Your task to perform on an android device: install app "DuckDuckGo Privacy Browser" Image 0: 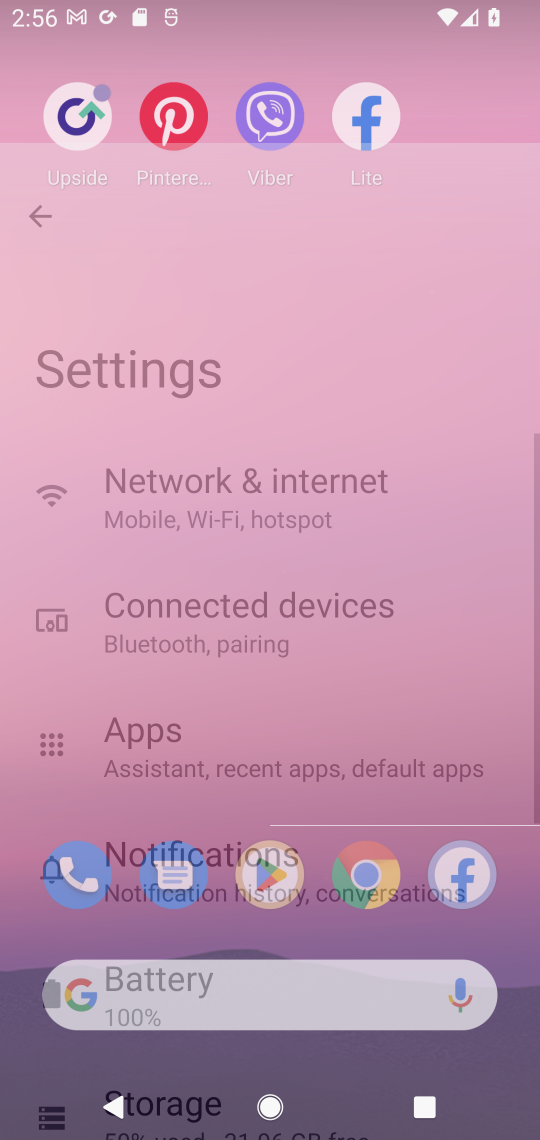
Step 0: press home button
Your task to perform on an android device: install app "DuckDuckGo Privacy Browser" Image 1: 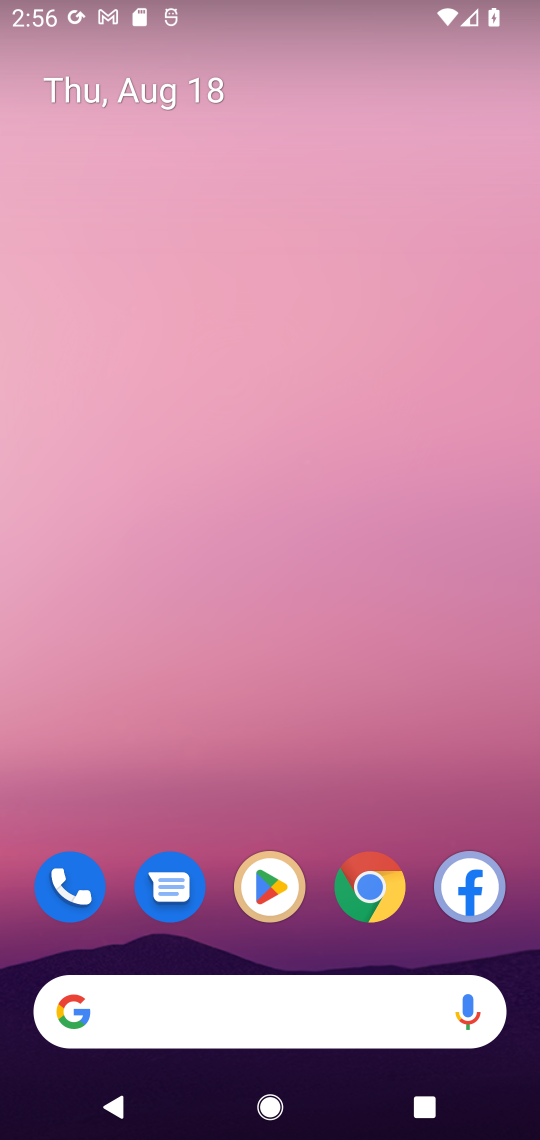
Step 1: drag from (318, 947) to (298, 11)
Your task to perform on an android device: install app "DuckDuckGo Privacy Browser" Image 2: 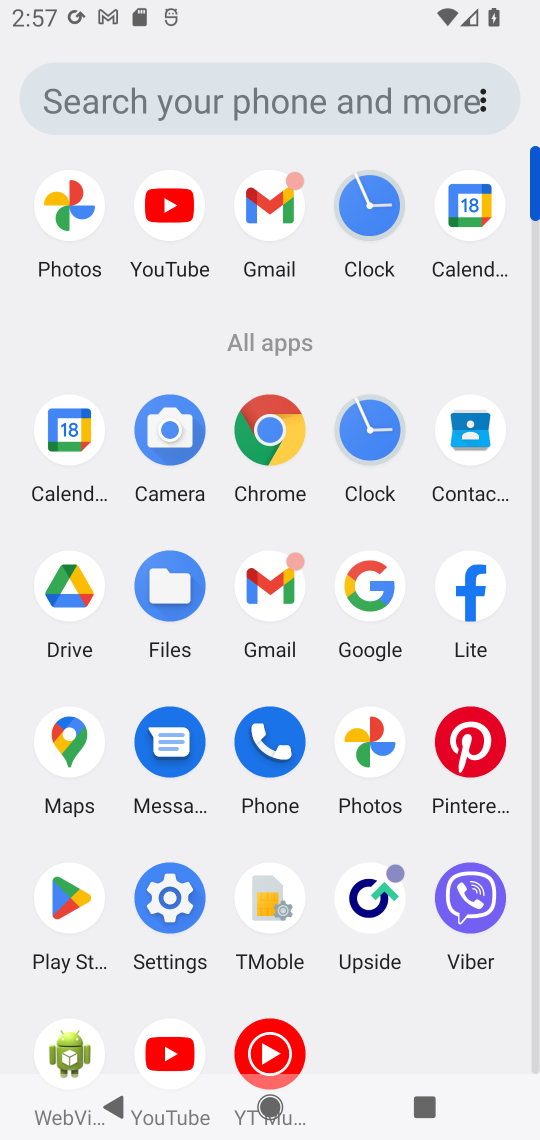
Step 2: click (64, 897)
Your task to perform on an android device: install app "DuckDuckGo Privacy Browser" Image 3: 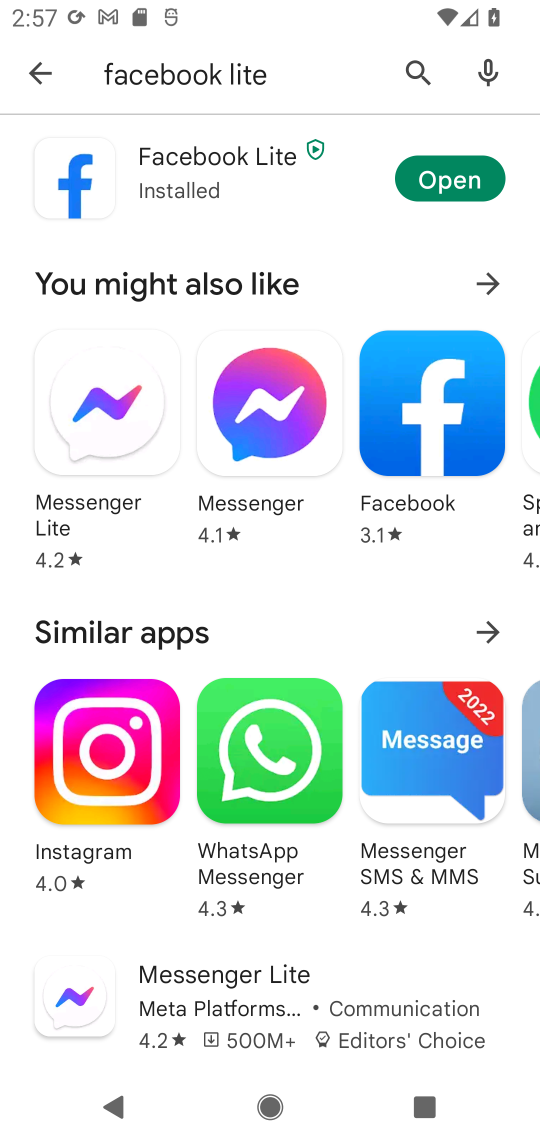
Step 3: click (419, 72)
Your task to perform on an android device: install app "DuckDuckGo Privacy Browser" Image 4: 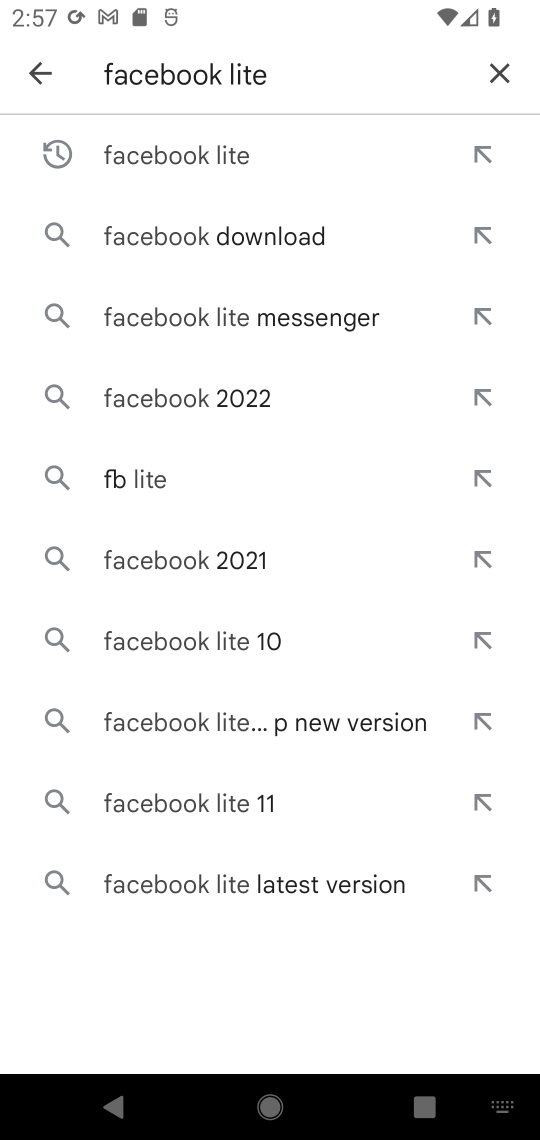
Step 4: click (486, 72)
Your task to perform on an android device: install app "DuckDuckGo Privacy Browser" Image 5: 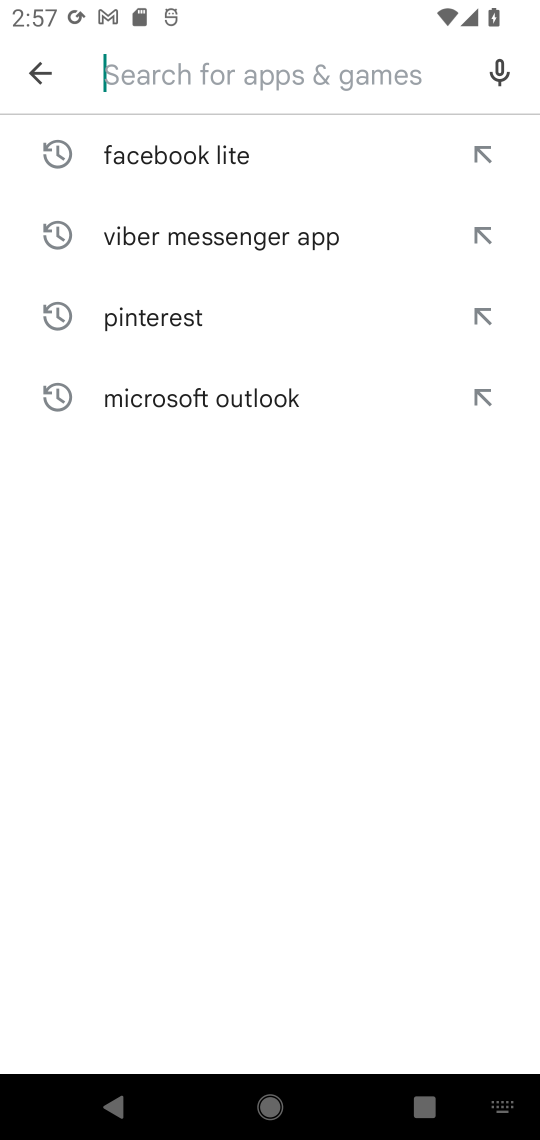
Step 5: type "DuckDuckGo Privacy Browser"
Your task to perform on an android device: install app "DuckDuckGo Privacy Browser" Image 6: 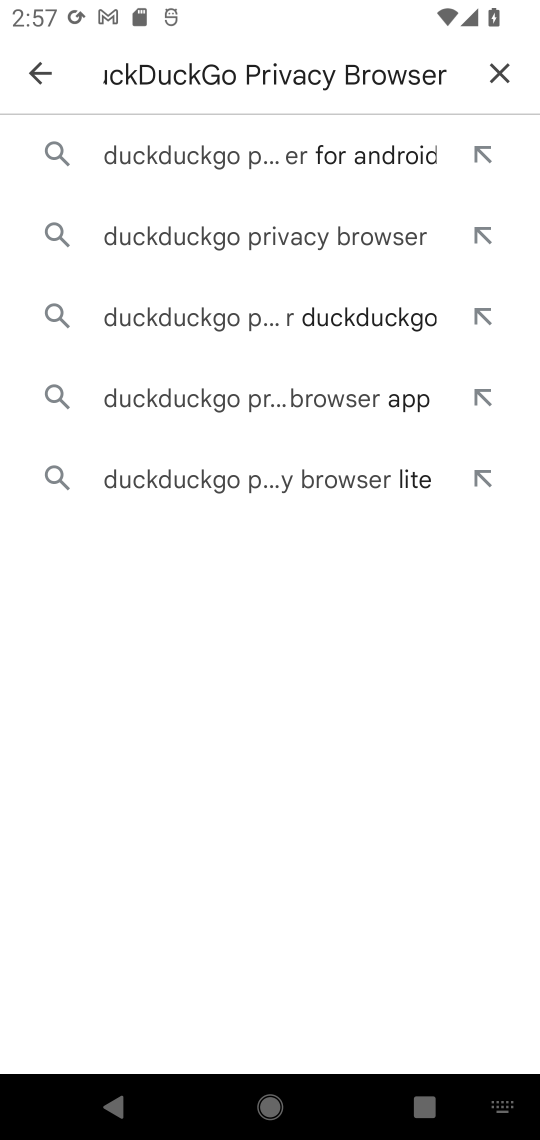
Step 6: click (294, 145)
Your task to perform on an android device: install app "DuckDuckGo Privacy Browser" Image 7: 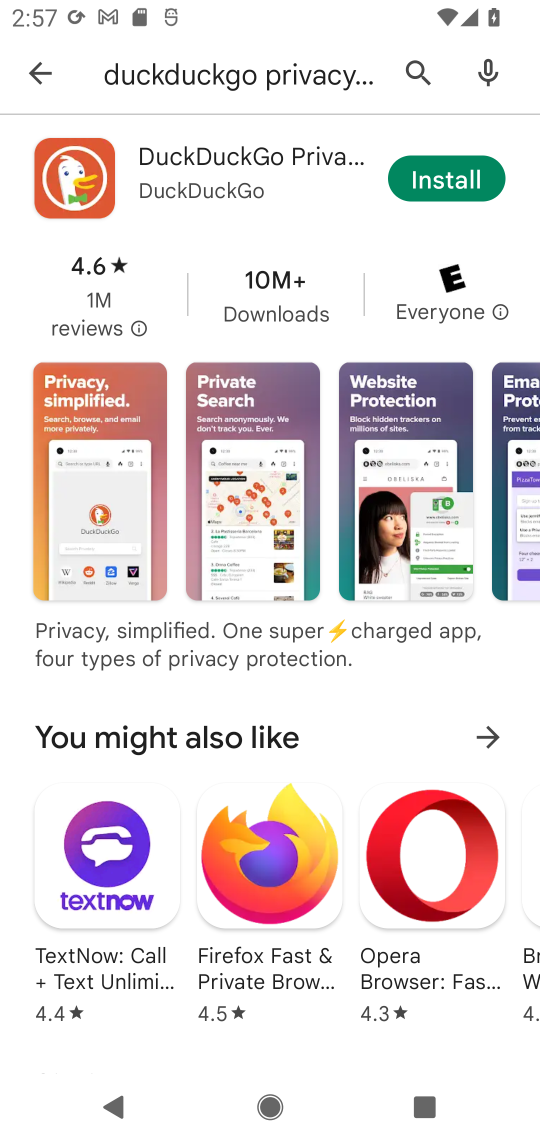
Step 7: click (443, 176)
Your task to perform on an android device: install app "DuckDuckGo Privacy Browser" Image 8: 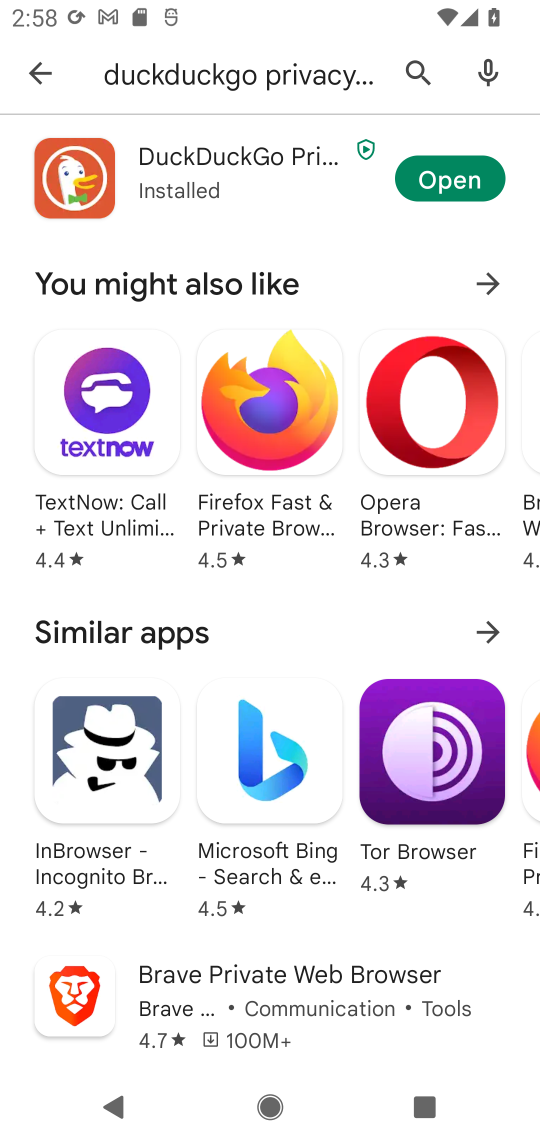
Step 8: click (443, 168)
Your task to perform on an android device: install app "DuckDuckGo Privacy Browser" Image 9: 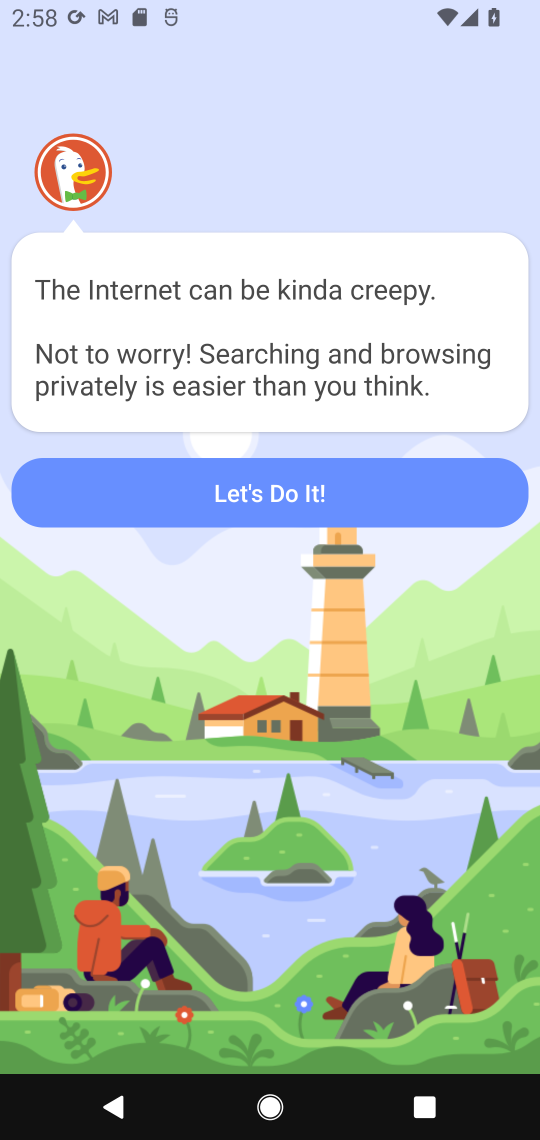
Step 9: click (262, 498)
Your task to perform on an android device: install app "DuckDuckGo Privacy Browser" Image 10: 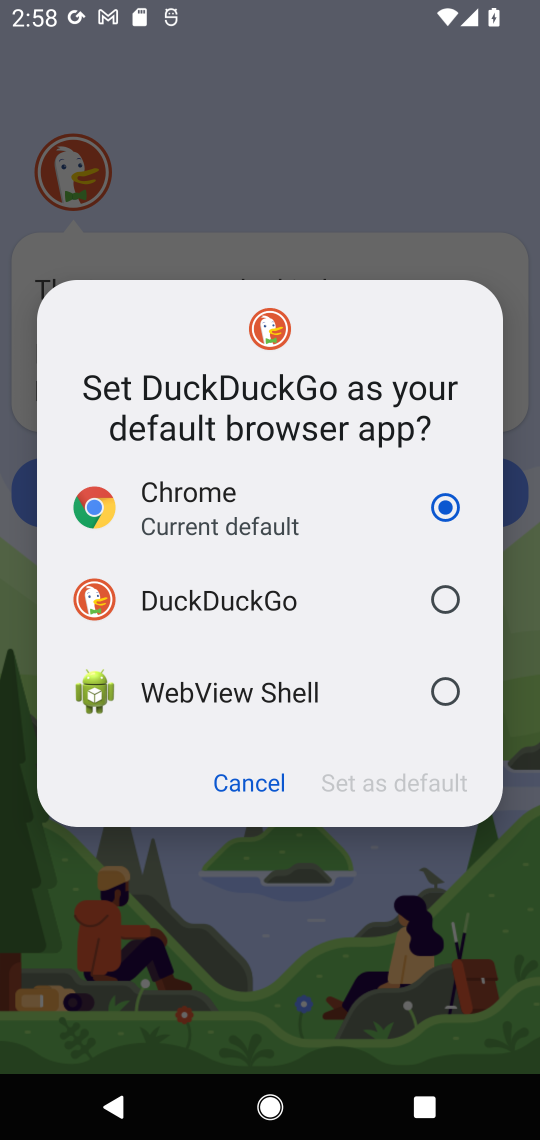
Step 10: click (442, 595)
Your task to perform on an android device: install app "DuckDuckGo Privacy Browser" Image 11: 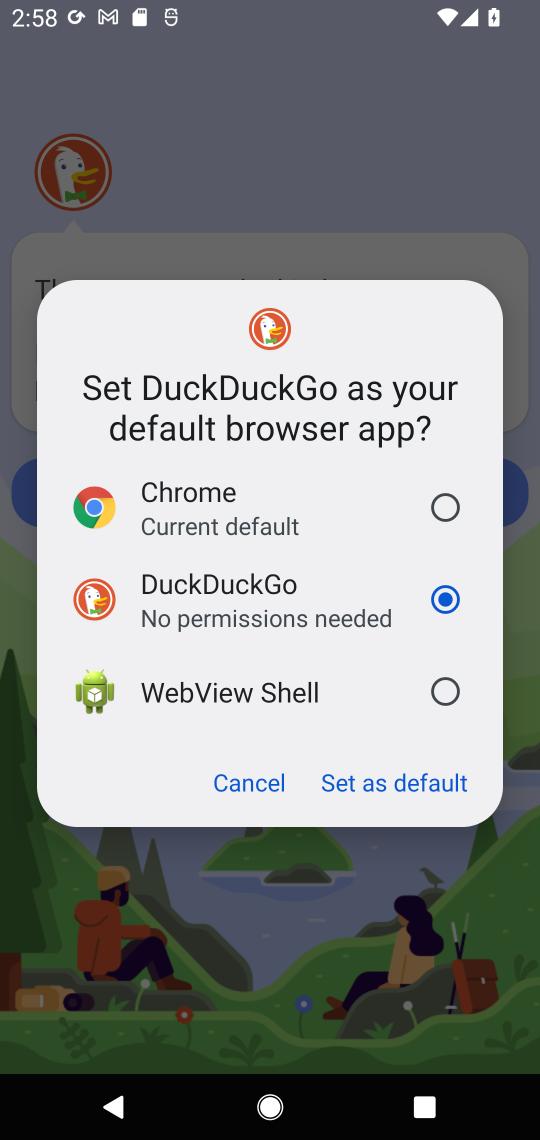
Step 11: click (402, 789)
Your task to perform on an android device: install app "DuckDuckGo Privacy Browser" Image 12: 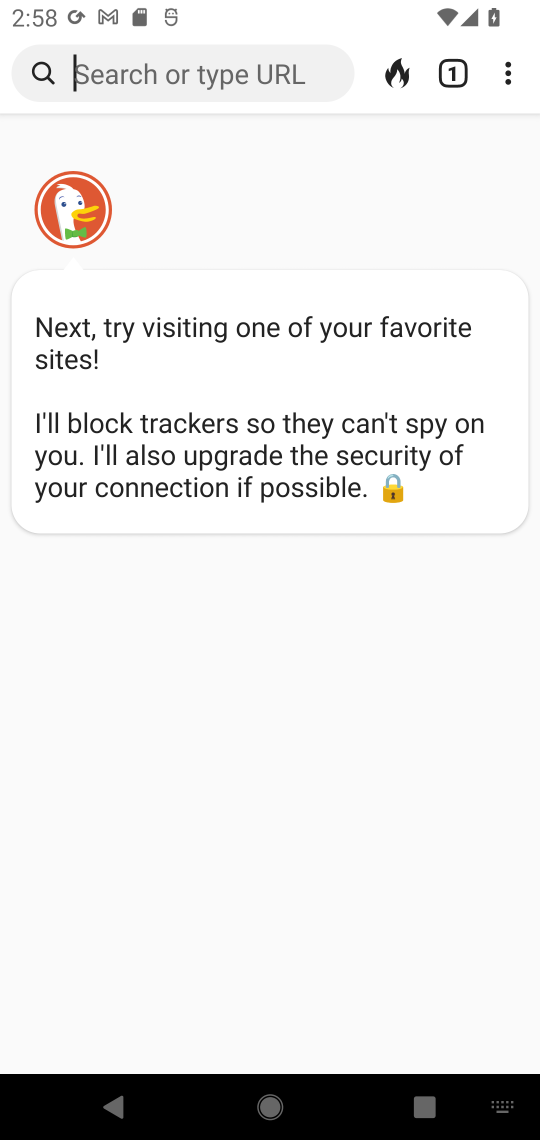
Step 12: task complete